Your task to perform on an android device: Open the stopwatch Image 0: 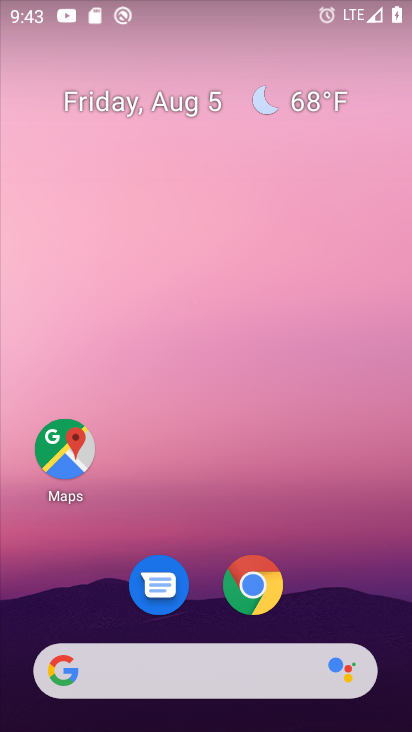
Step 0: drag from (228, 481) to (250, 9)
Your task to perform on an android device: Open the stopwatch Image 1: 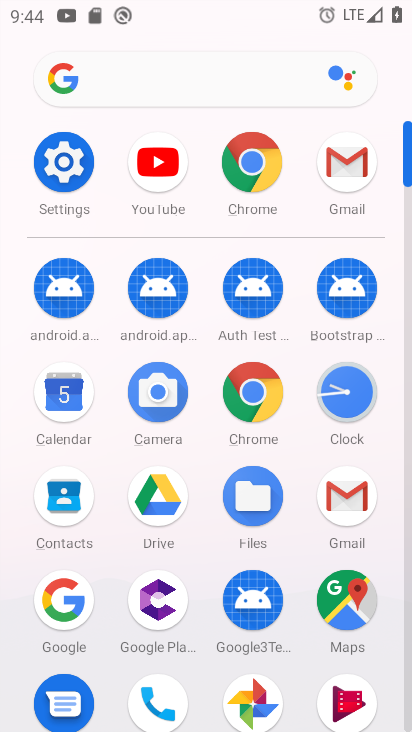
Step 1: click (337, 393)
Your task to perform on an android device: Open the stopwatch Image 2: 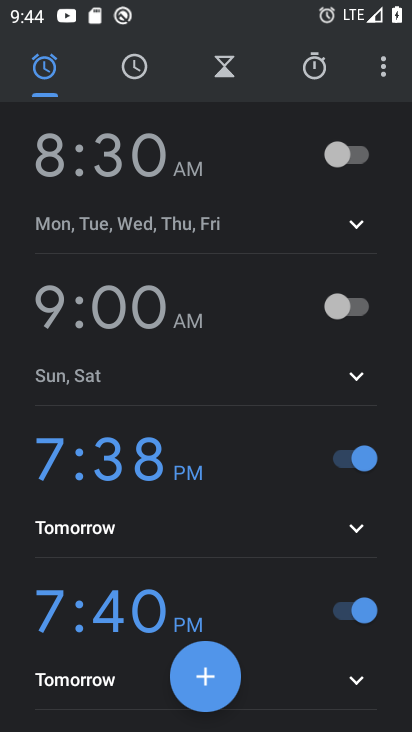
Step 2: click (316, 67)
Your task to perform on an android device: Open the stopwatch Image 3: 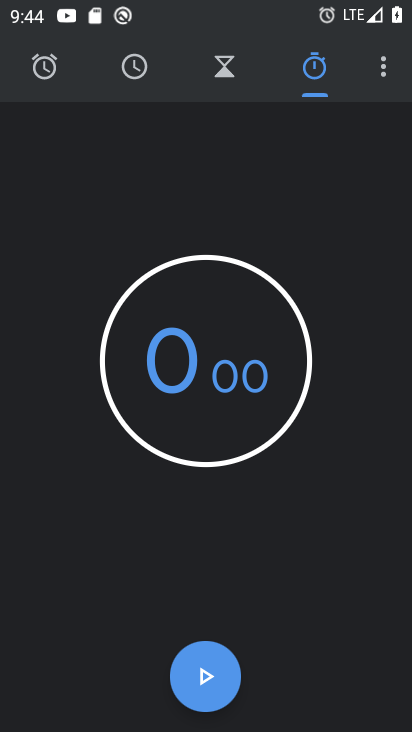
Step 3: task complete